Your task to perform on an android device: change notifications settings Image 0: 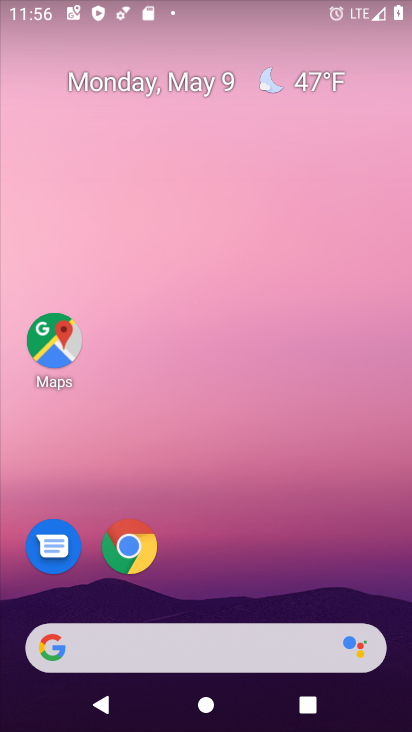
Step 0: drag from (357, 610) to (344, 25)
Your task to perform on an android device: change notifications settings Image 1: 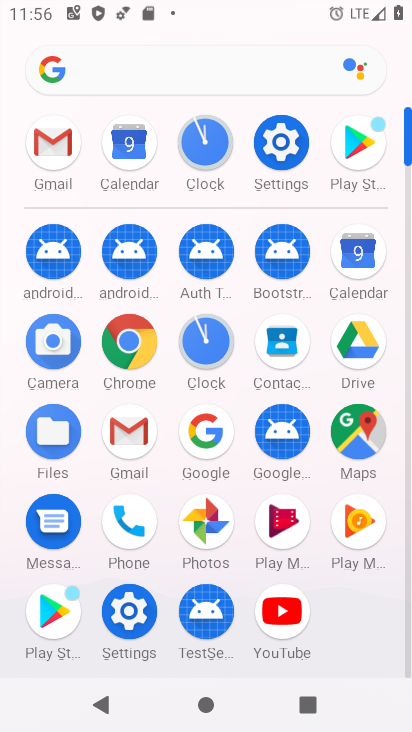
Step 1: click (288, 151)
Your task to perform on an android device: change notifications settings Image 2: 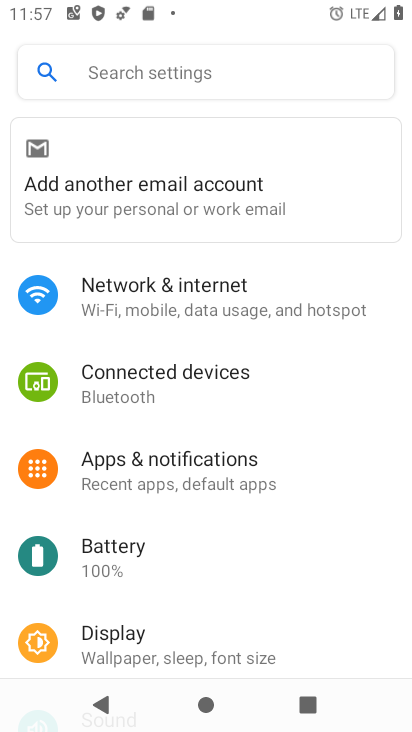
Step 2: click (182, 469)
Your task to perform on an android device: change notifications settings Image 3: 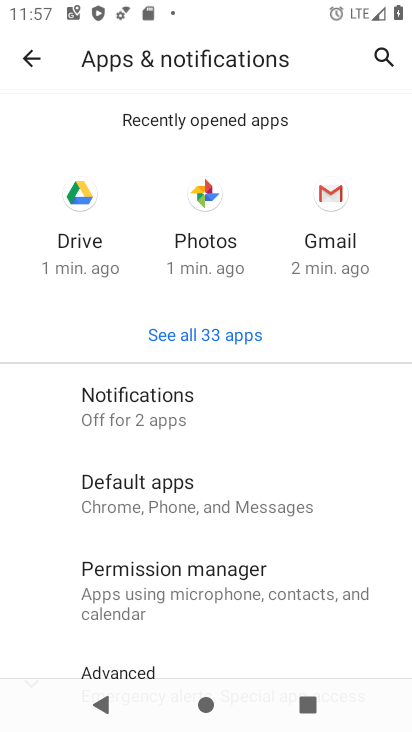
Step 3: drag from (204, 549) to (228, 351)
Your task to perform on an android device: change notifications settings Image 4: 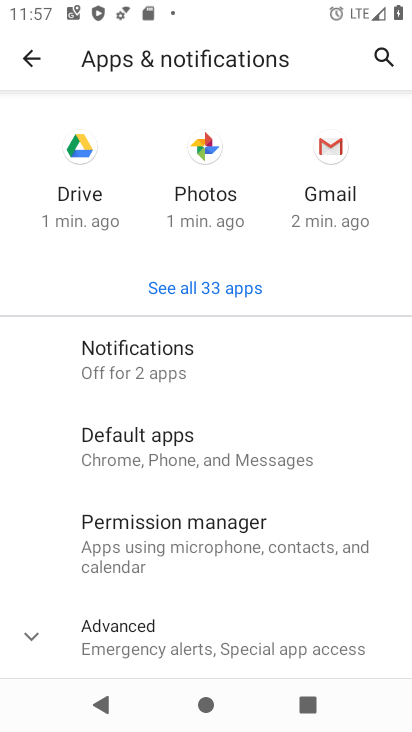
Step 4: click (146, 356)
Your task to perform on an android device: change notifications settings Image 5: 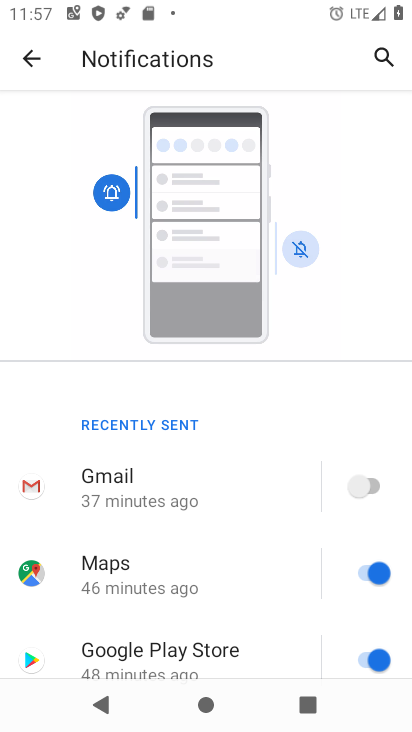
Step 5: drag from (225, 539) to (233, 152)
Your task to perform on an android device: change notifications settings Image 6: 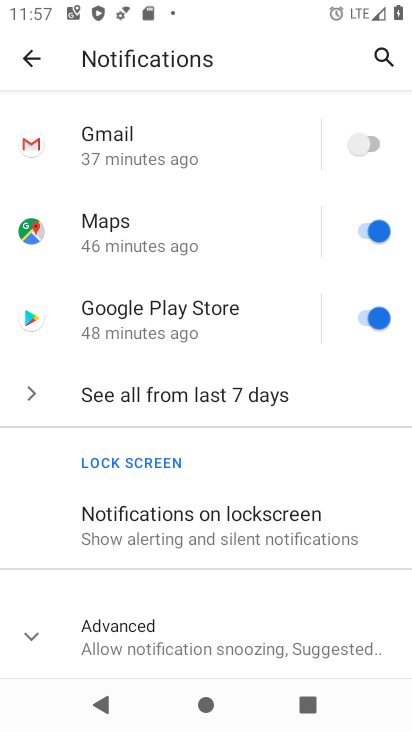
Step 6: click (168, 400)
Your task to perform on an android device: change notifications settings Image 7: 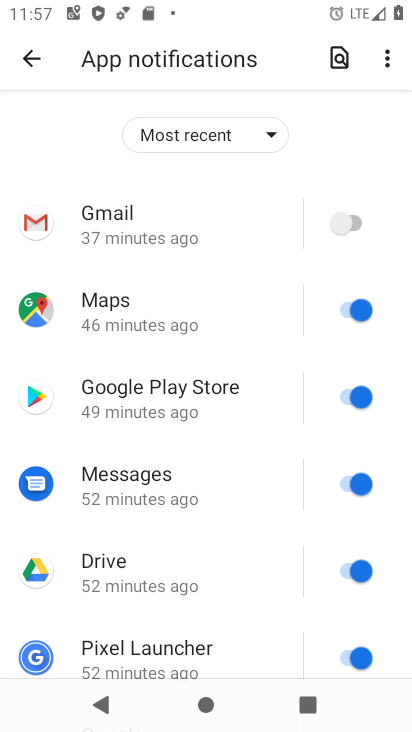
Step 7: click (267, 136)
Your task to perform on an android device: change notifications settings Image 8: 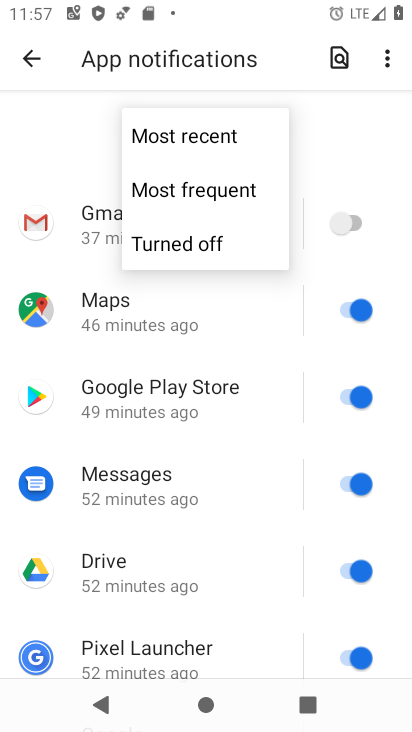
Step 8: click (197, 191)
Your task to perform on an android device: change notifications settings Image 9: 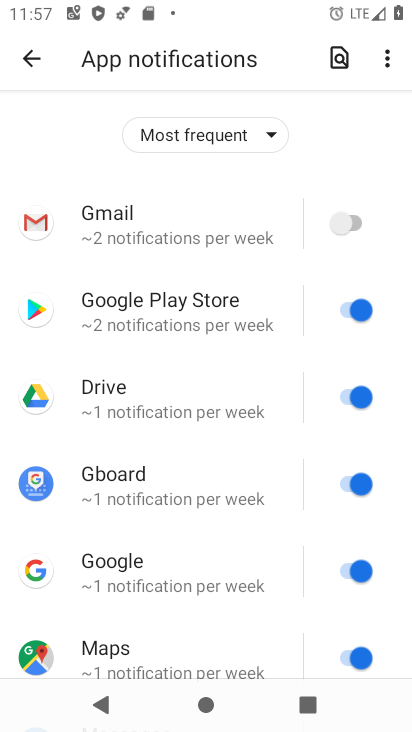
Step 9: task complete